Your task to perform on an android device: What is the news today? Image 0: 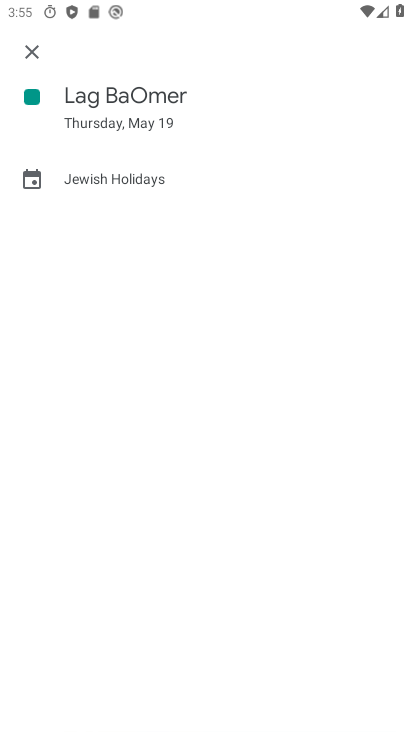
Step 0: click (30, 43)
Your task to perform on an android device: What is the news today? Image 1: 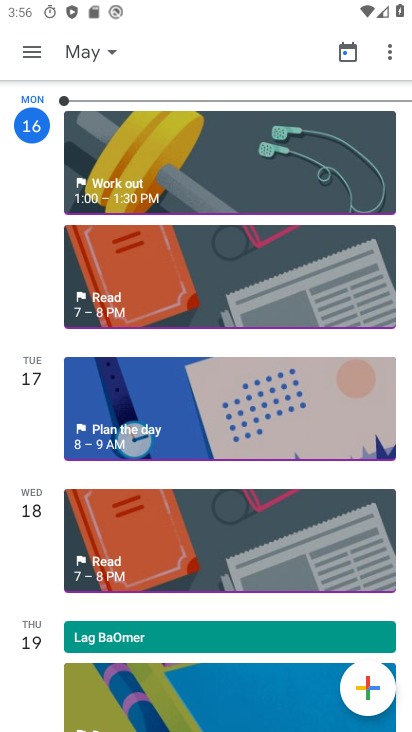
Step 1: press back button
Your task to perform on an android device: What is the news today? Image 2: 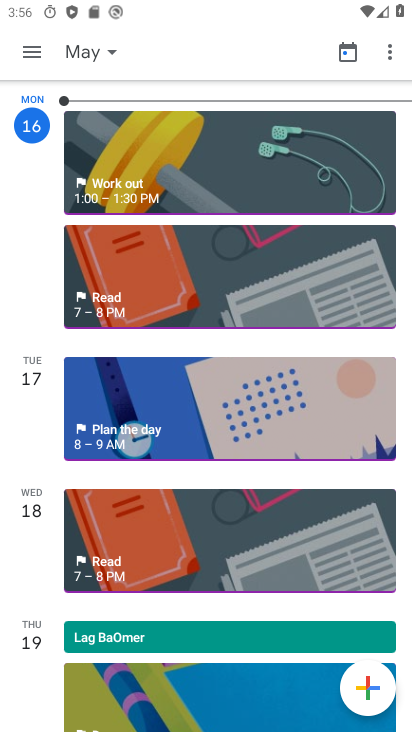
Step 2: press back button
Your task to perform on an android device: What is the news today? Image 3: 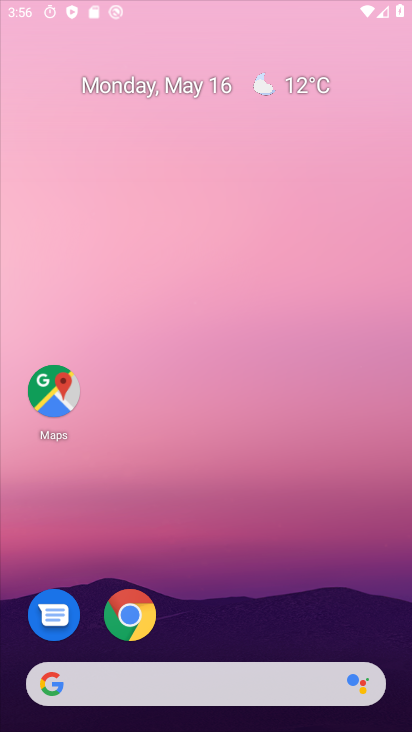
Step 3: press back button
Your task to perform on an android device: What is the news today? Image 4: 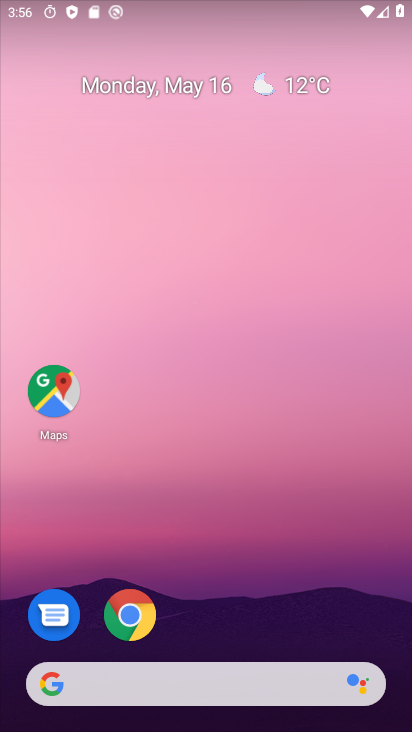
Step 4: drag from (21, 205) to (410, 296)
Your task to perform on an android device: What is the news today? Image 5: 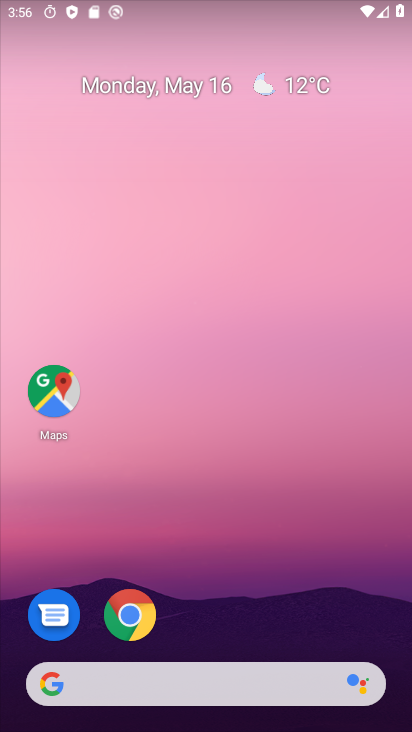
Step 5: drag from (66, 305) to (371, 383)
Your task to perform on an android device: What is the news today? Image 6: 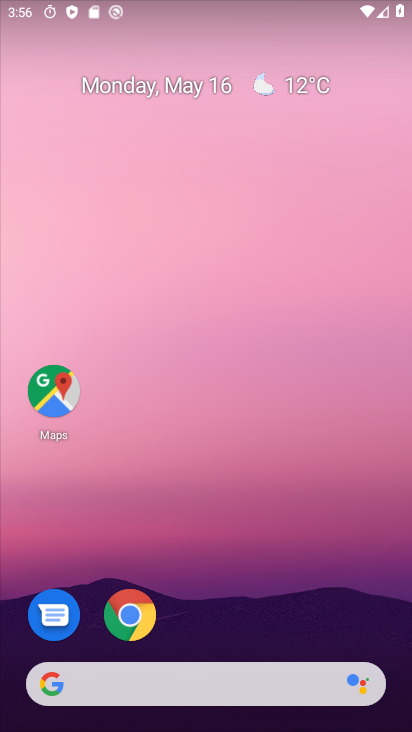
Step 6: drag from (19, 223) to (389, 357)
Your task to perform on an android device: What is the news today? Image 7: 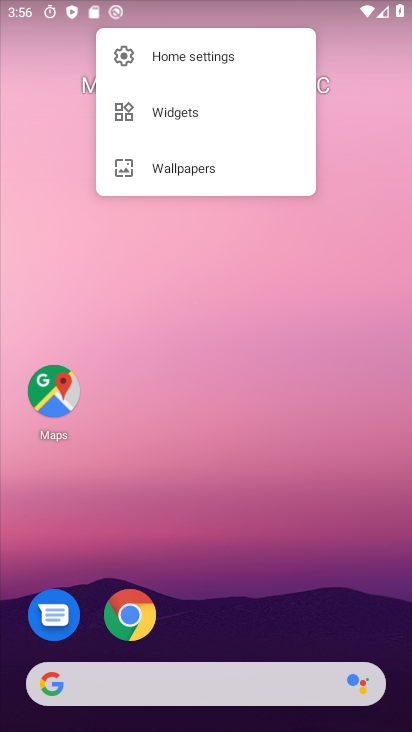
Step 7: drag from (9, 268) to (388, 449)
Your task to perform on an android device: What is the news today? Image 8: 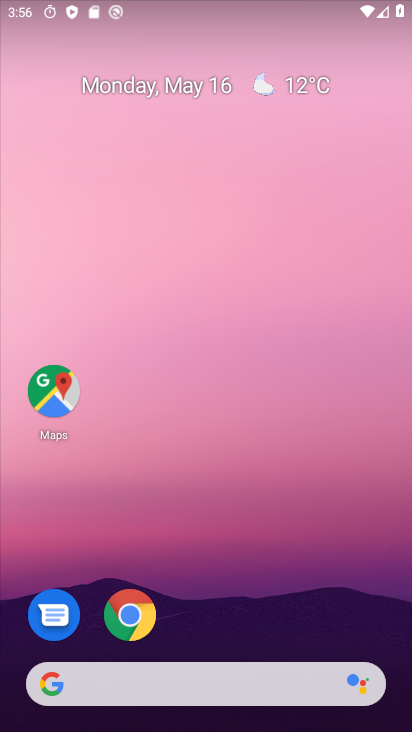
Step 8: drag from (28, 240) to (359, 396)
Your task to perform on an android device: What is the news today? Image 9: 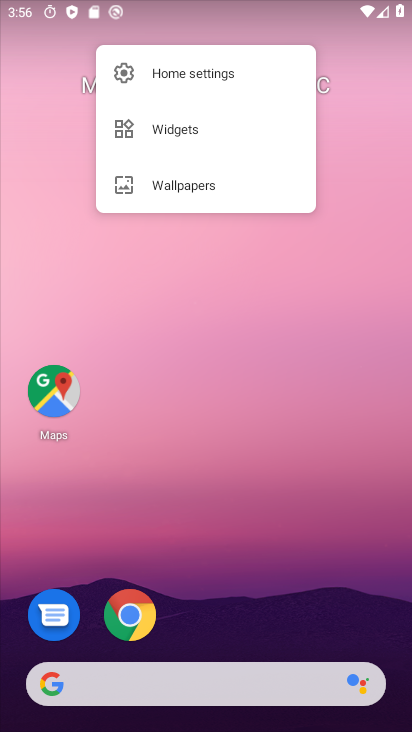
Step 9: drag from (8, 150) to (373, 346)
Your task to perform on an android device: What is the news today? Image 10: 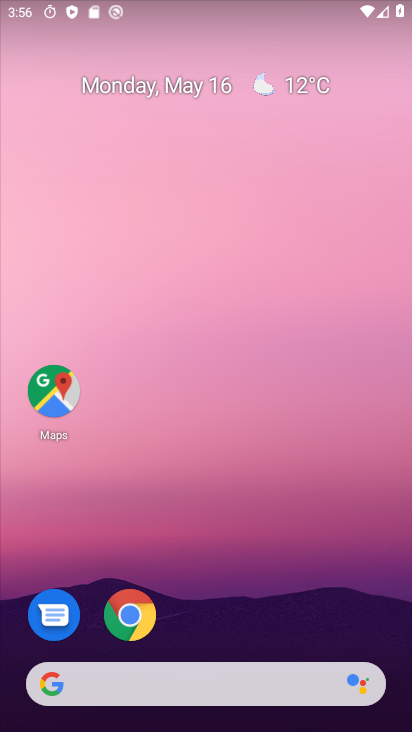
Step 10: drag from (18, 258) to (391, 360)
Your task to perform on an android device: What is the news today? Image 11: 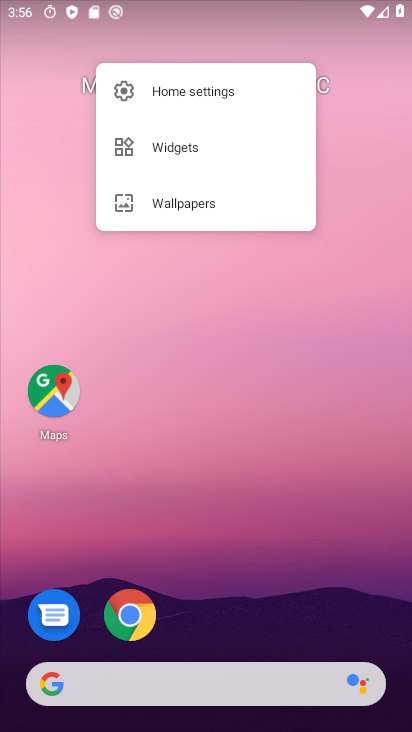
Step 11: drag from (167, 330) to (360, 338)
Your task to perform on an android device: What is the news today? Image 12: 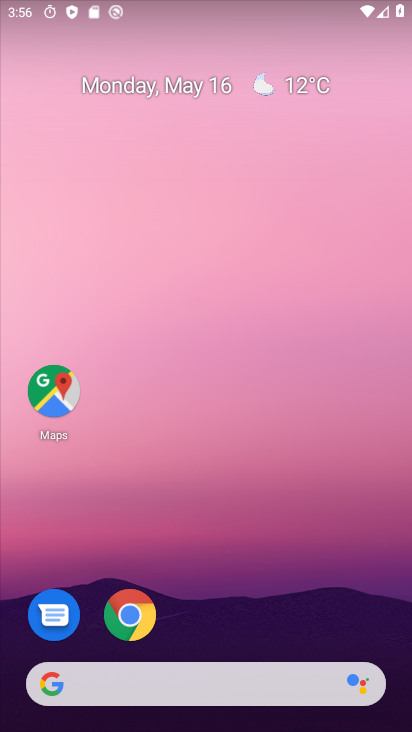
Step 12: drag from (23, 210) to (355, 351)
Your task to perform on an android device: What is the news today? Image 13: 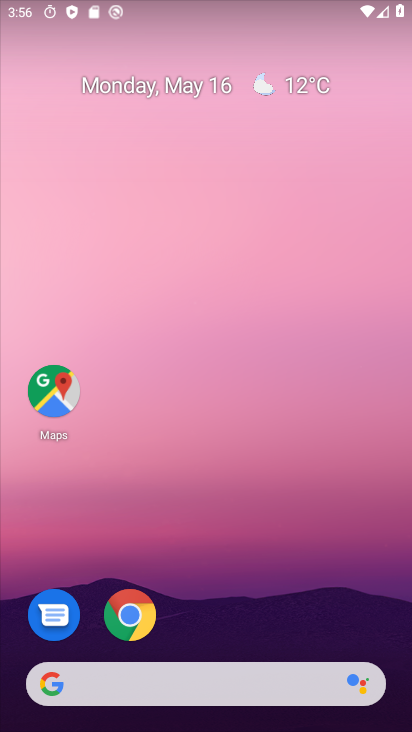
Step 13: drag from (70, 228) to (381, 478)
Your task to perform on an android device: What is the news today? Image 14: 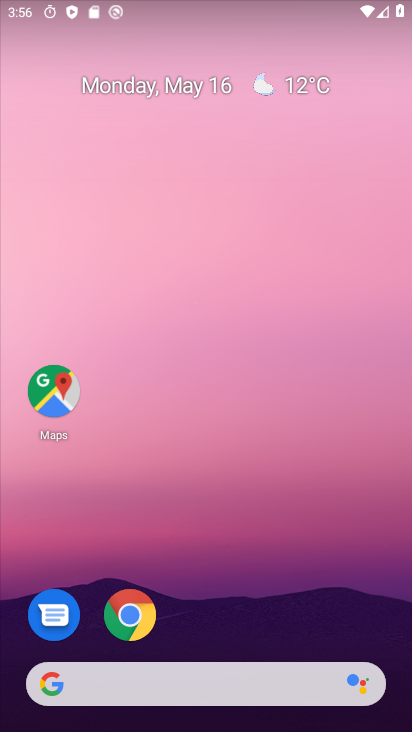
Step 14: drag from (29, 259) to (355, 280)
Your task to perform on an android device: What is the news today? Image 15: 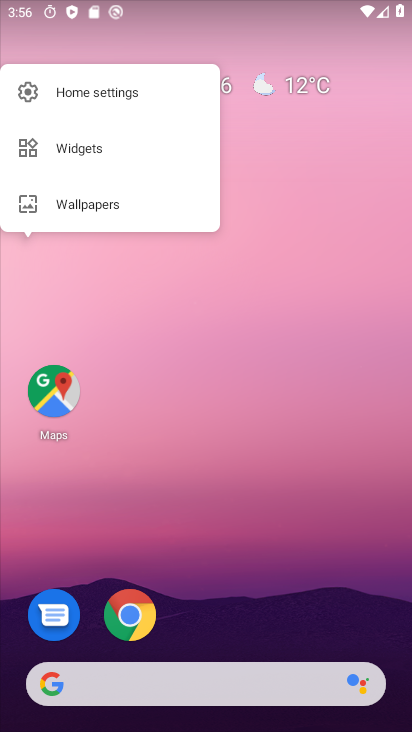
Step 15: drag from (5, 187) to (399, 489)
Your task to perform on an android device: What is the news today? Image 16: 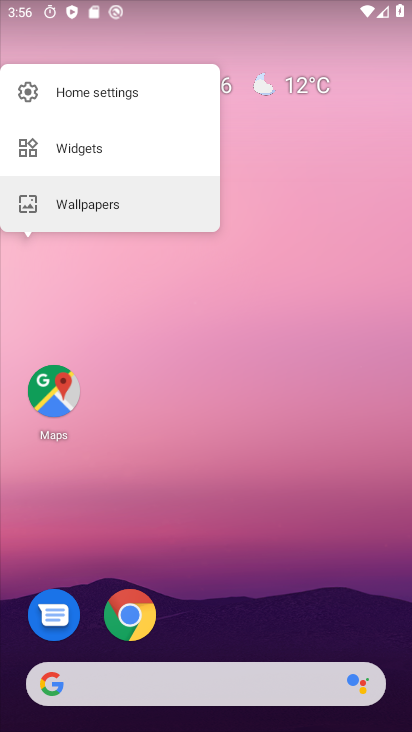
Step 16: drag from (350, 421) to (396, 415)
Your task to perform on an android device: What is the news today? Image 17: 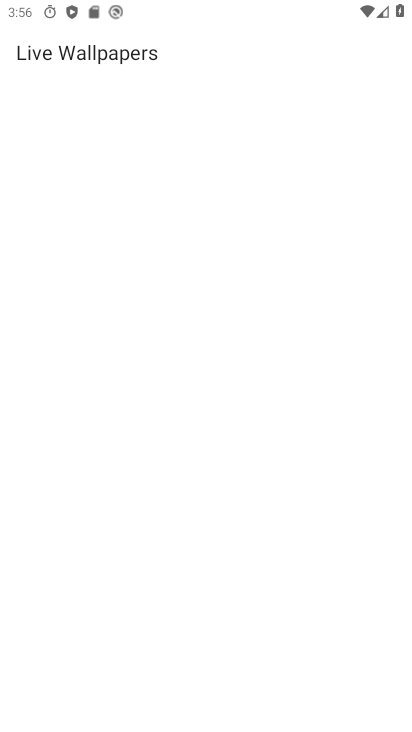
Step 17: click (146, 336)
Your task to perform on an android device: What is the news today? Image 18: 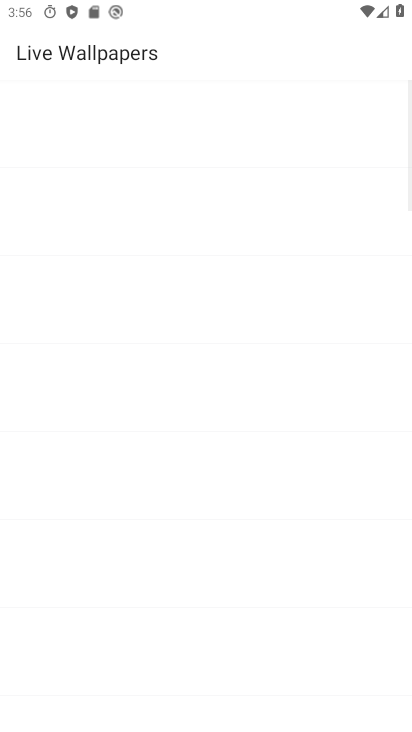
Step 18: click (149, 336)
Your task to perform on an android device: What is the news today? Image 19: 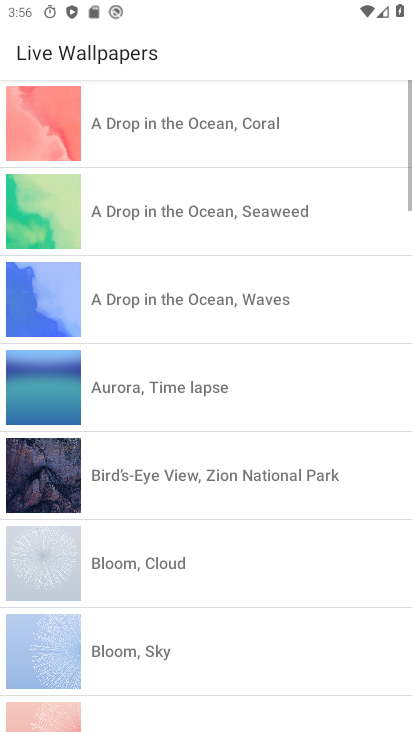
Step 19: press back button
Your task to perform on an android device: What is the news today? Image 20: 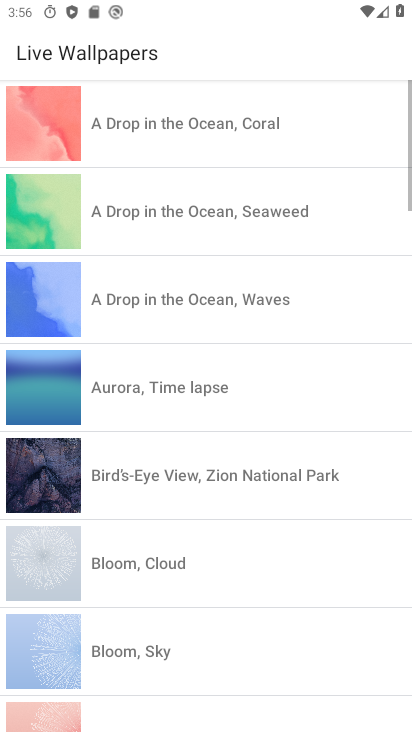
Step 20: press back button
Your task to perform on an android device: What is the news today? Image 21: 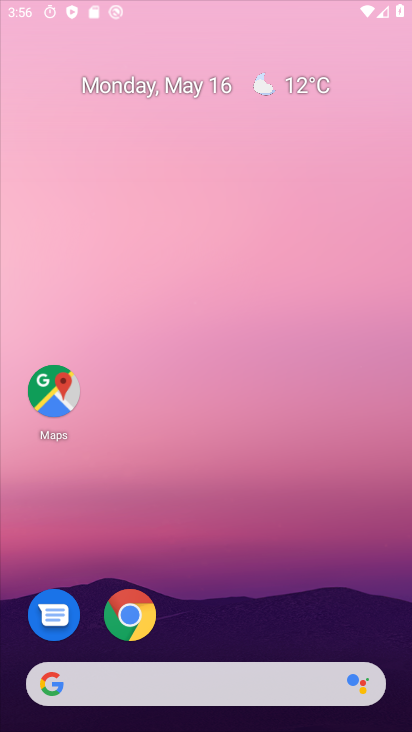
Step 21: press back button
Your task to perform on an android device: What is the news today? Image 22: 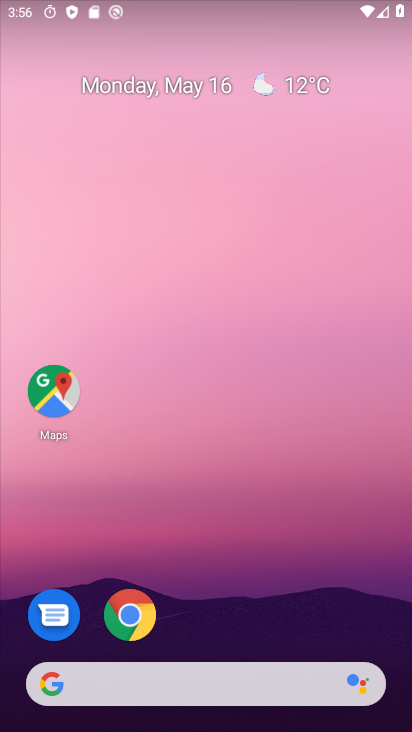
Step 22: drag from (1, 157) to (408, 546)
Your task to perform on an android device: What is the news today? Image 23: 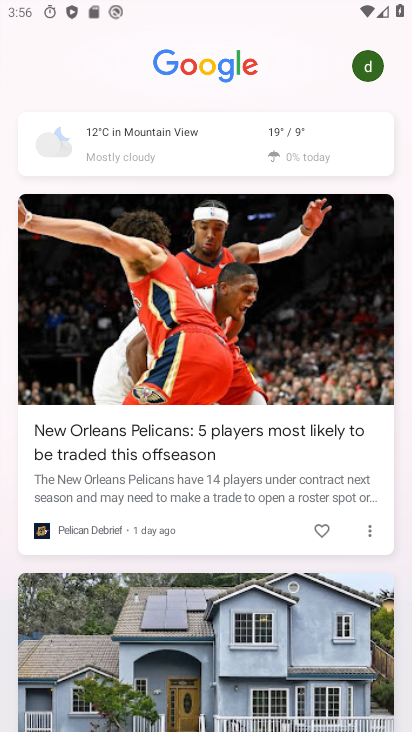
Step 23: click (143, 150)
Your task to perform on an android device: What is the news today? Image 24: 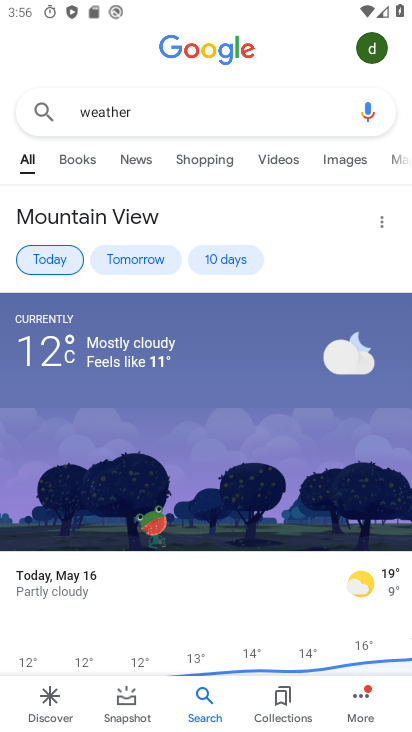
Step 24: task complete